Your task to perform on an android device: Go to Reddit.com Image 0: 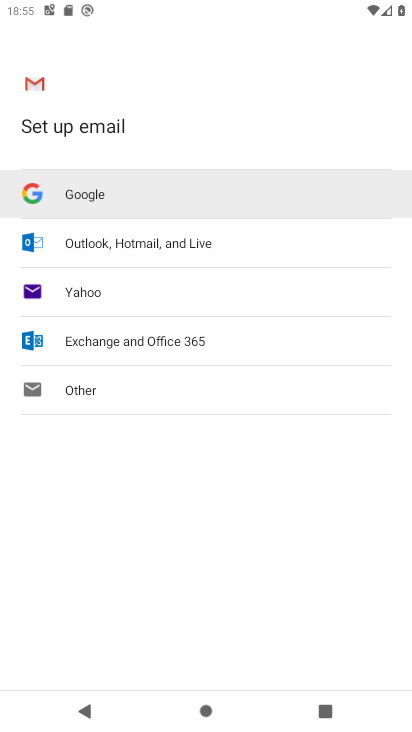
Step 0: press home button
Your task to perform on an android device: Go to Reddit.com Image 1: 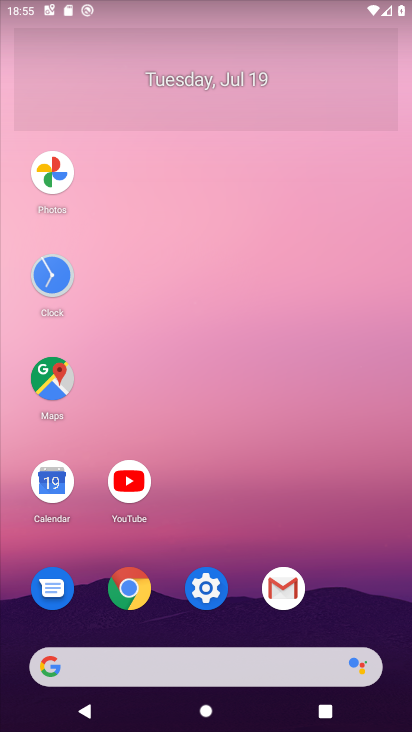
Step 1: click (126, 589)
Your task to perform on an android device: Go to Reddit.com Image 2: 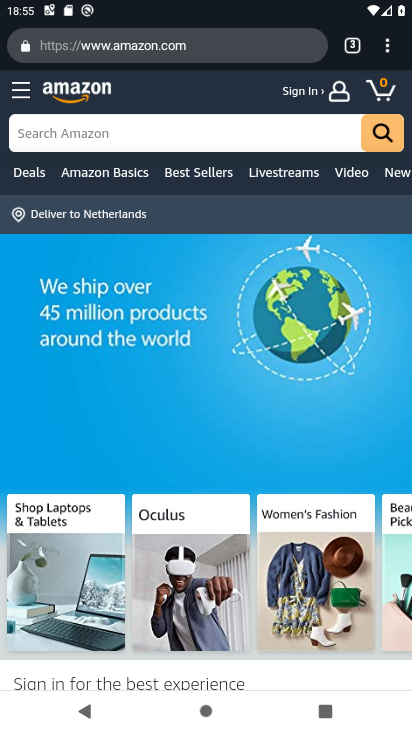
Step 2: click (385, 38)
Your task to perform on an android device: Go to Reddit.com Image 3: 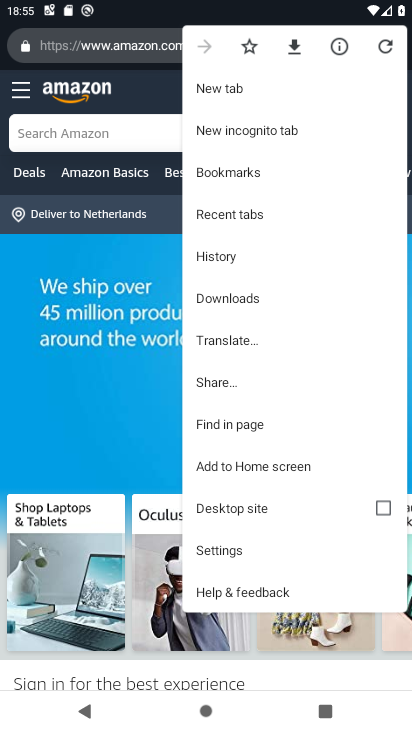
Step 3: click (228, 83)
Your task to perform on an android device: Go to Reddit.com Image 4: 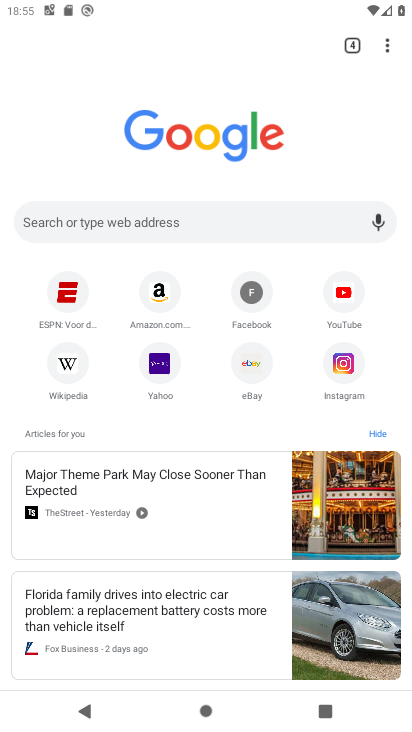
Step 4: click (234, 208)
Your task to perform on an android device: Go to Reddit.com Image 5: 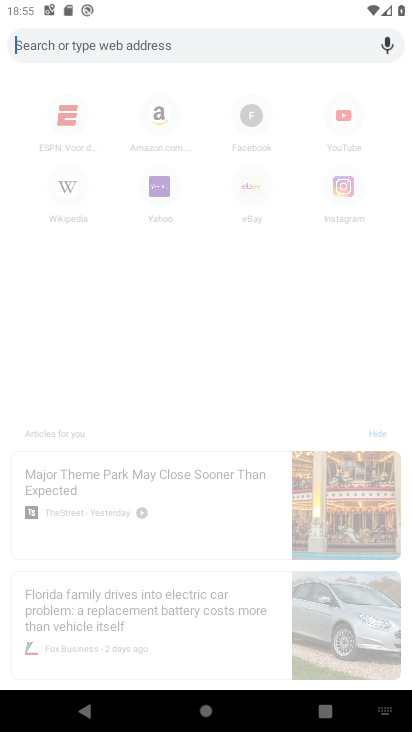
Step 5: type " Reddit.com"
Your task to perform on an android device: Go to Reddit.com Image 6: 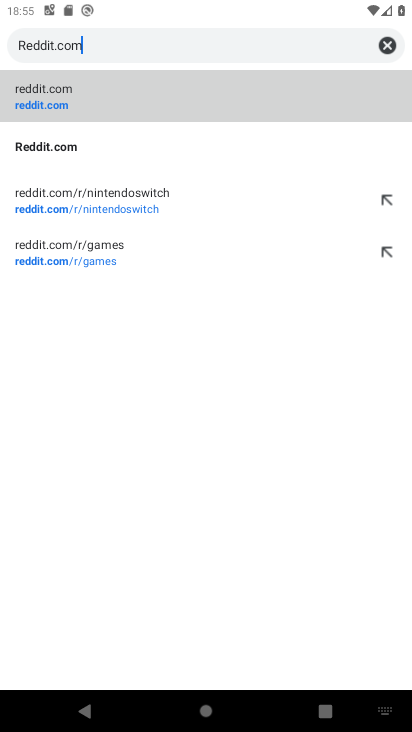
Step 6: drag from (339, 239) to (36, 98)
Your task to perform on an android device: Go to Reddit.com Image 7: 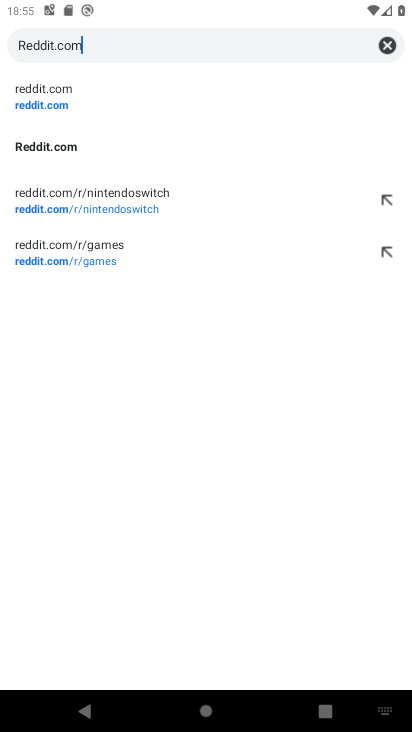
Step 7: click (56, 90)
Your task to perform on an android device: Go to Reddit.com Image 8: 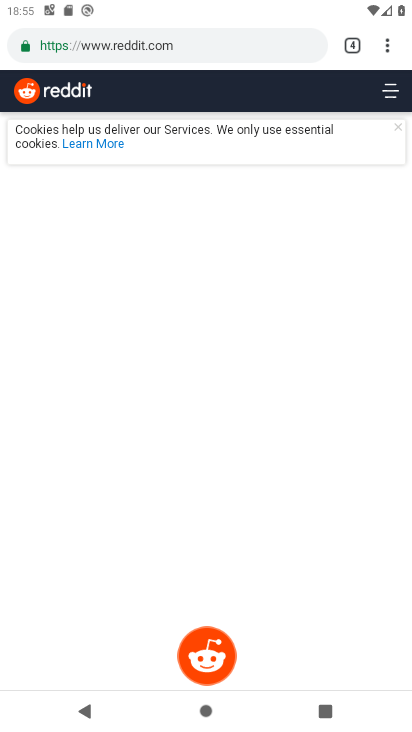
Step 8: task complete